Your task to perform on an android device: see creations saved in the google photos Image 0: 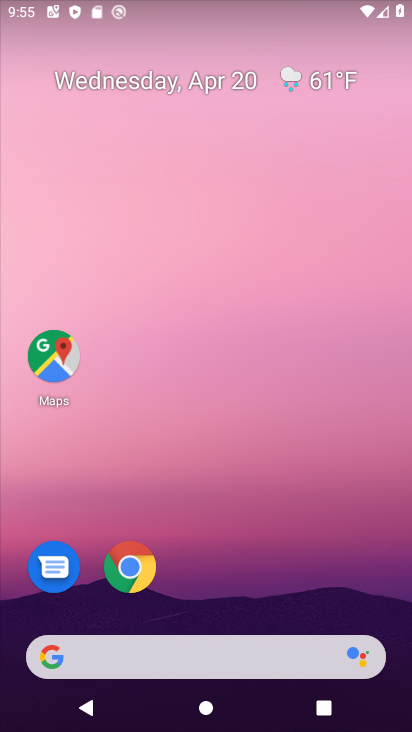
Step 0: drag from (193, 601) to (196, 110)
Your task to perform on an android device: see creations saved in the google photos Image 1: 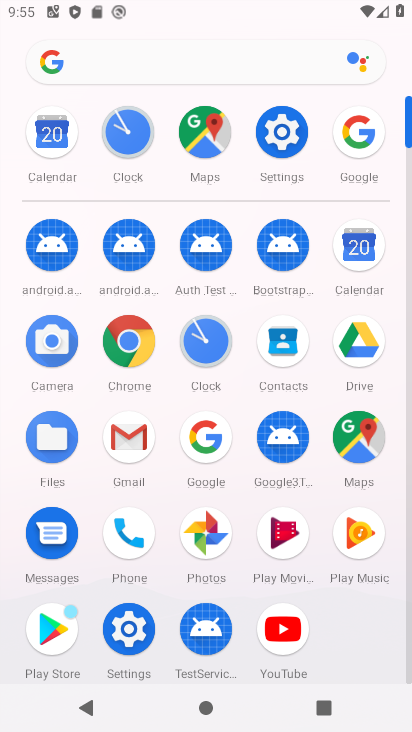
Step 1: click (216, 522)
Your task to perform on an android device: see creations saved in the google photos Image 2: 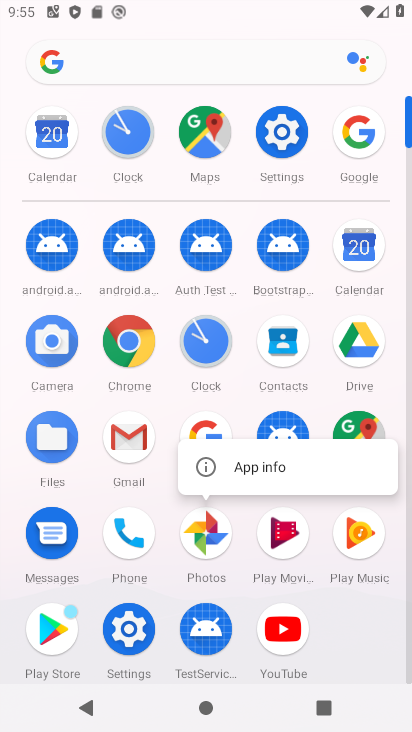
Step 2: click (206, 536)
Your task to perform on an android device: see creations saved in the google photos Image 3: 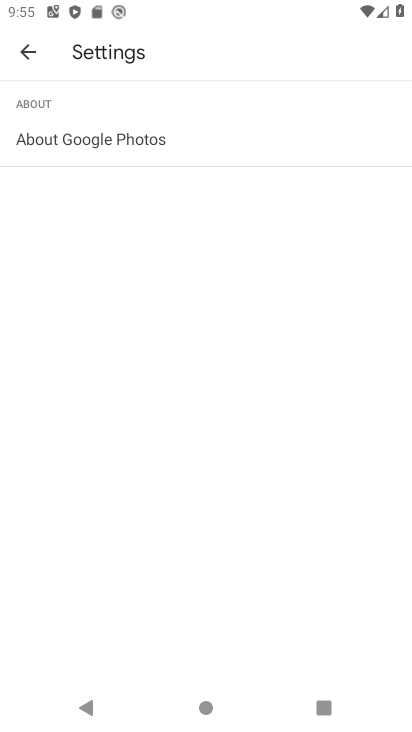
Step 3: click (20, 50)
Your task to perform on an android device: see creations saved in the google photos Image 4: 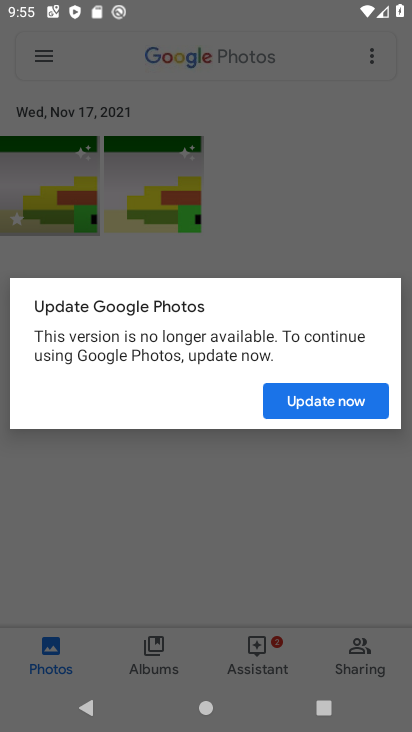
Step 4: click (307, 412)
Your task to perform on an android device: see creations saved in the google photos Image 5: 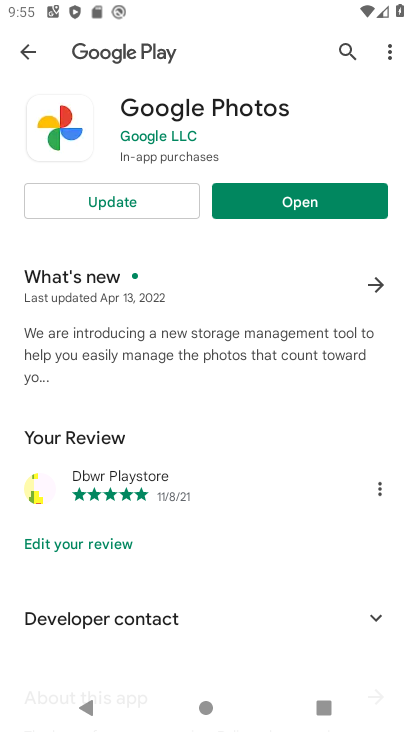
Step 5: click (277, 203)
Your task to perform on an android device: see creations saved in the google photos Image 6: 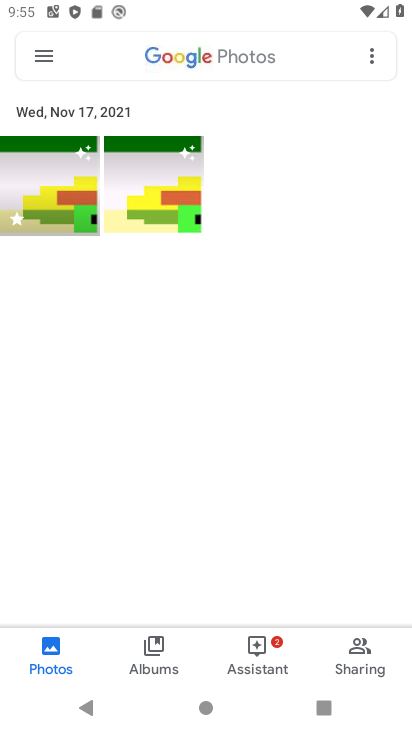
Step 6: click (187, 61)
Your task to perform on an android device: see creations saved in the google photos Image 7: 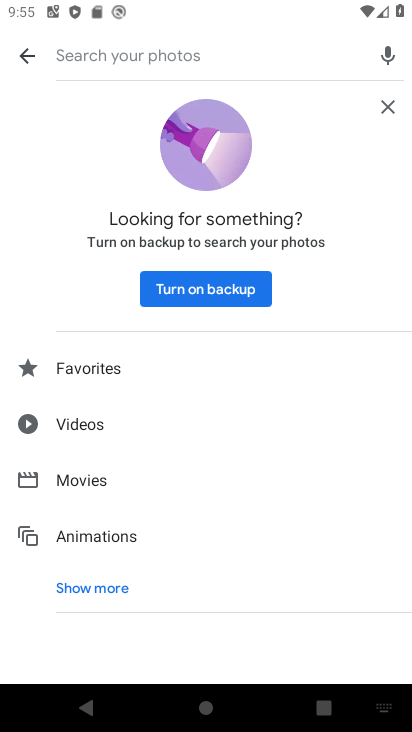
Step 7: click (97, 581)
Your task to perform on an android device: see creations saved in the google photos Image 8: 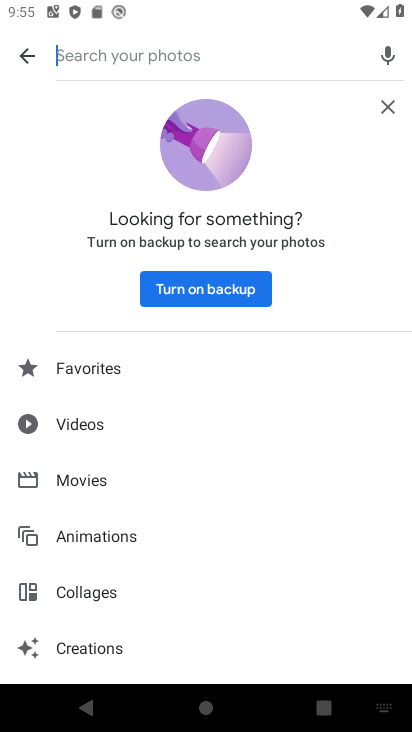
Step 8: click (105, 639)
Your task to perform on an android device: see creations saved in the google photos Image 9: 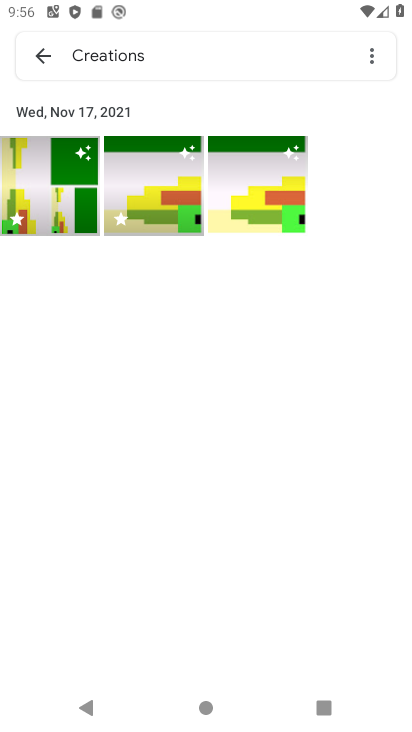
Step 9: click (34, 209)
Your task to perform on an android device: see creations saved in the google photos Image 10: 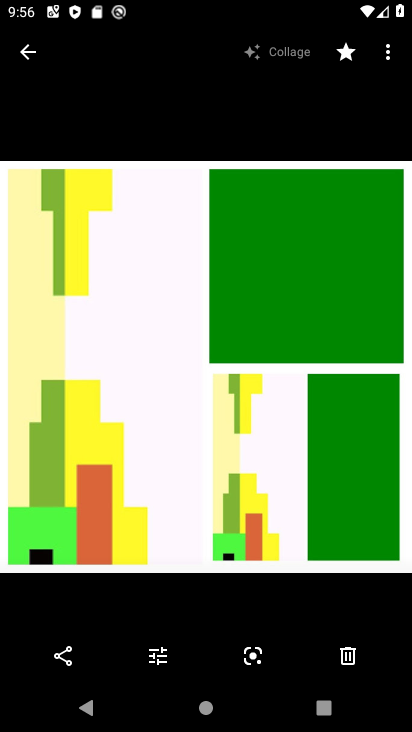
Step 10: task complete